Your task to perform on an android device: Open the web browser Image 0: 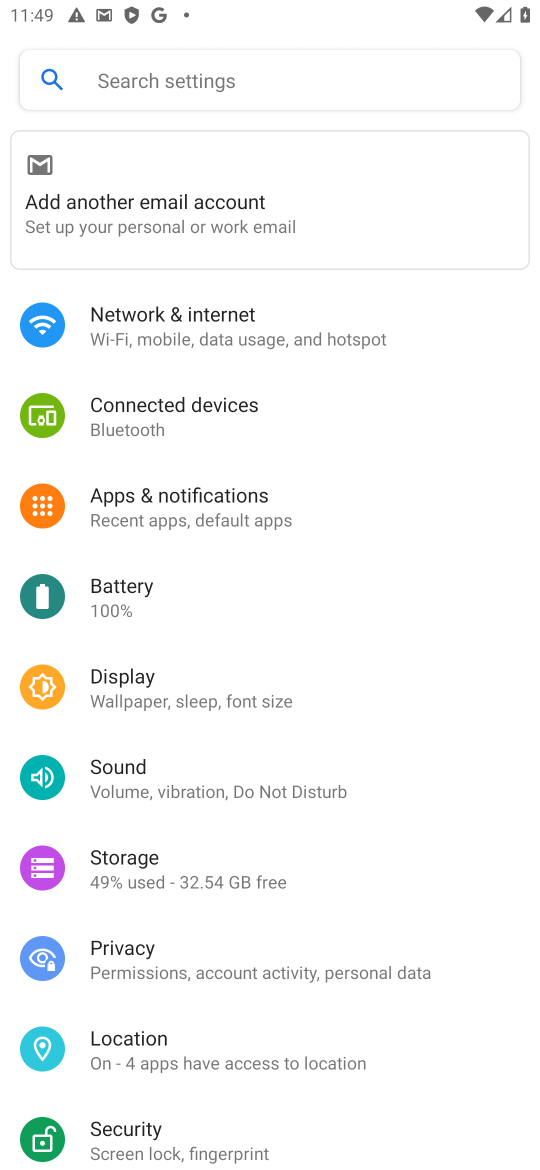
Step 0: press home button
Your task to perform on an android device: Open the web browser Image 1: 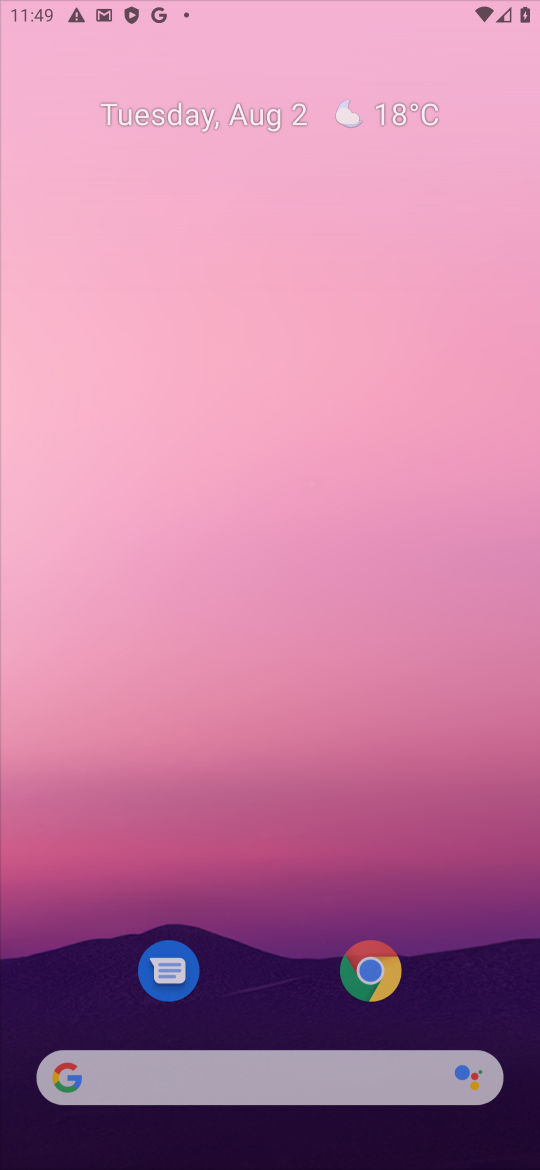
Step 1: task complete